Your task to perform on an android device: open app "Google Home" Image 0: 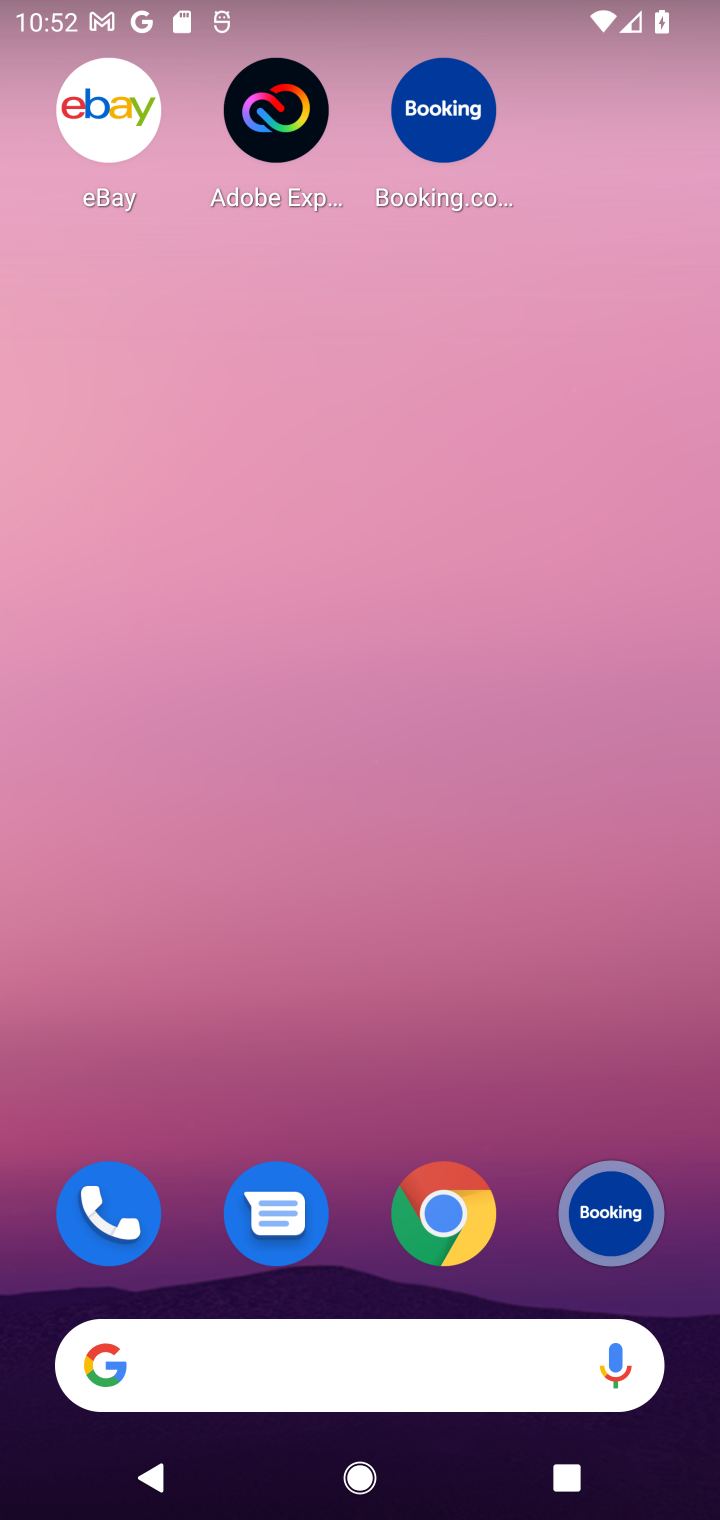
Step 0: drag from (384, 1381) to (319, 331)
Your task to perform on an android device: open app "Google Home" Image 1: 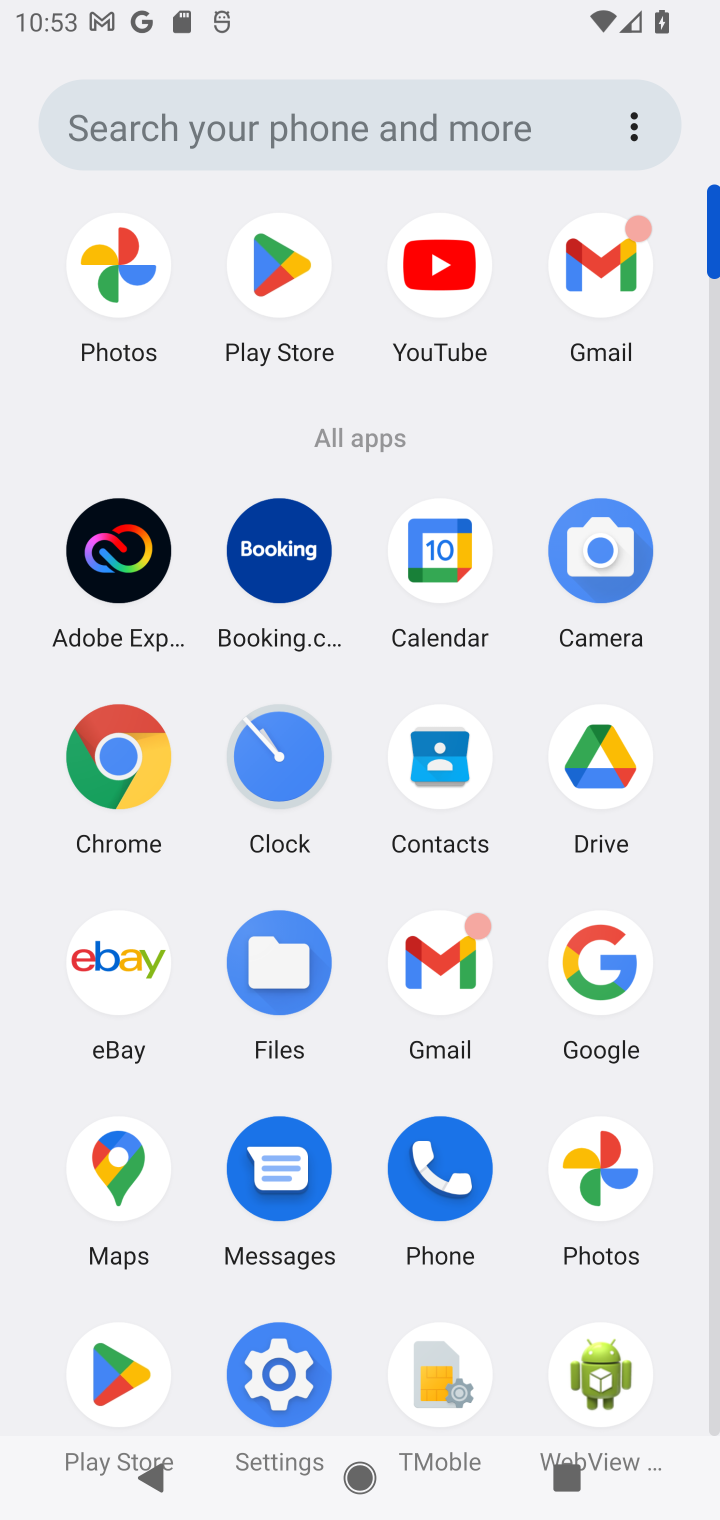
Step 1: click (120, 1375)
Your task to perform on an android device: open app "Google Home" Image 2: 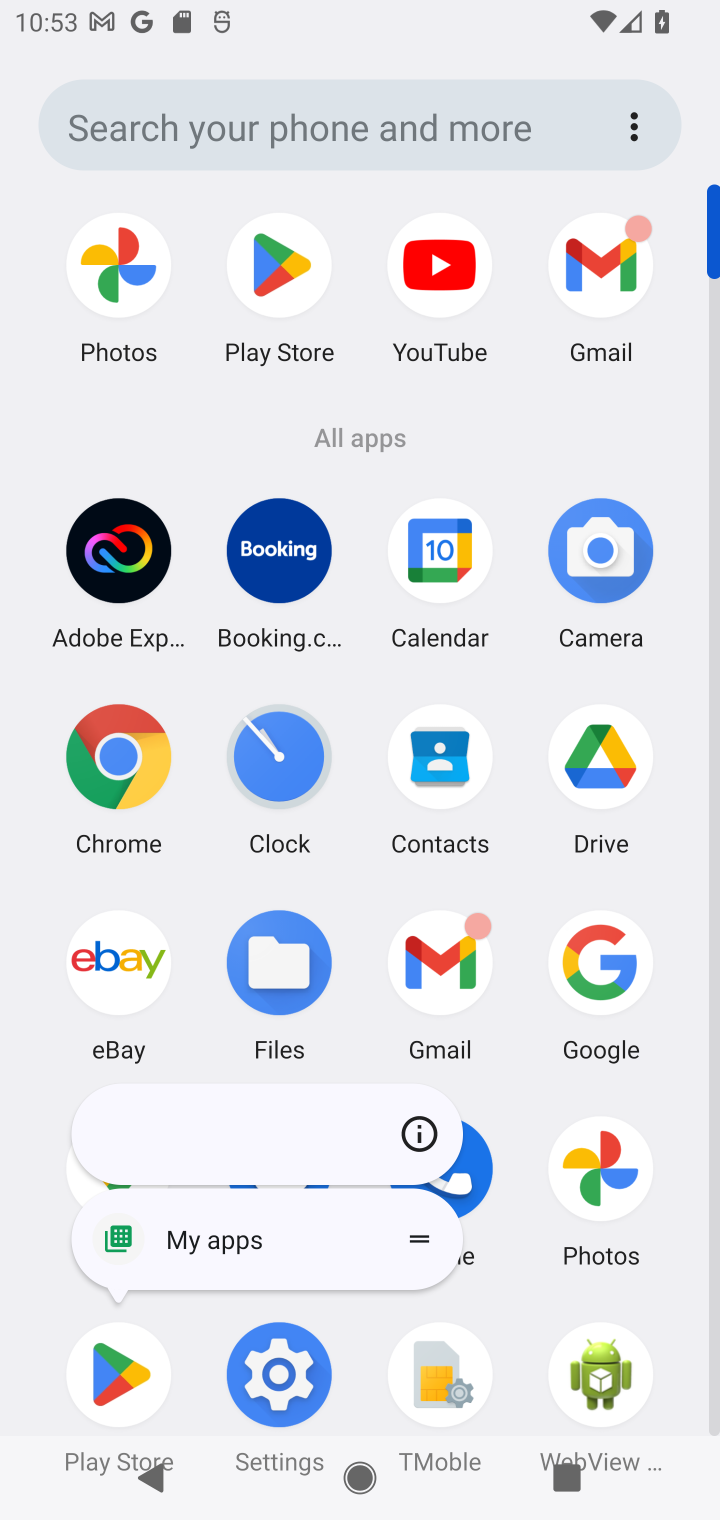
Step 2: click (120, 1375)
Your task to perform on an android device: open app "Google Home" Image 3: 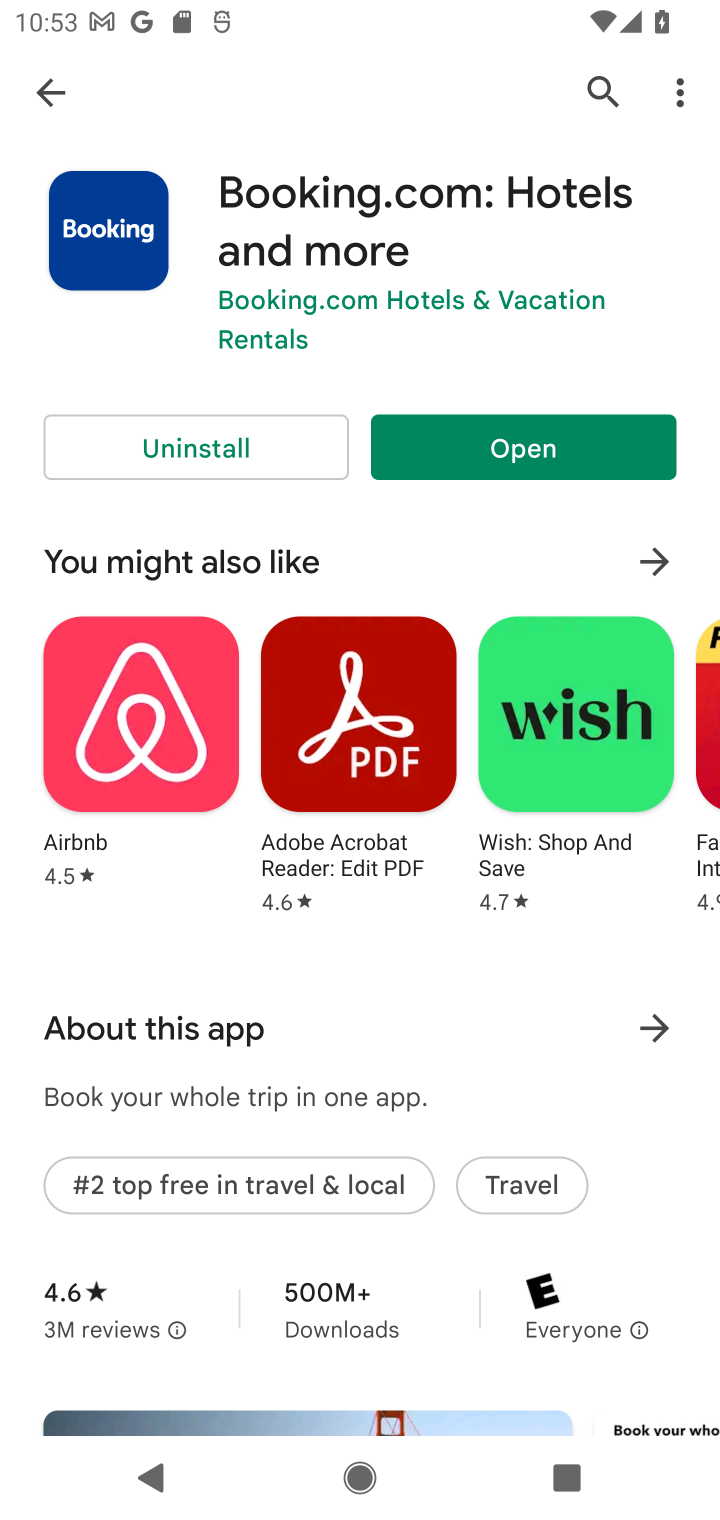
Step 3: press back button
Your task to perform on an android device: open app "Google Home" Image 4: 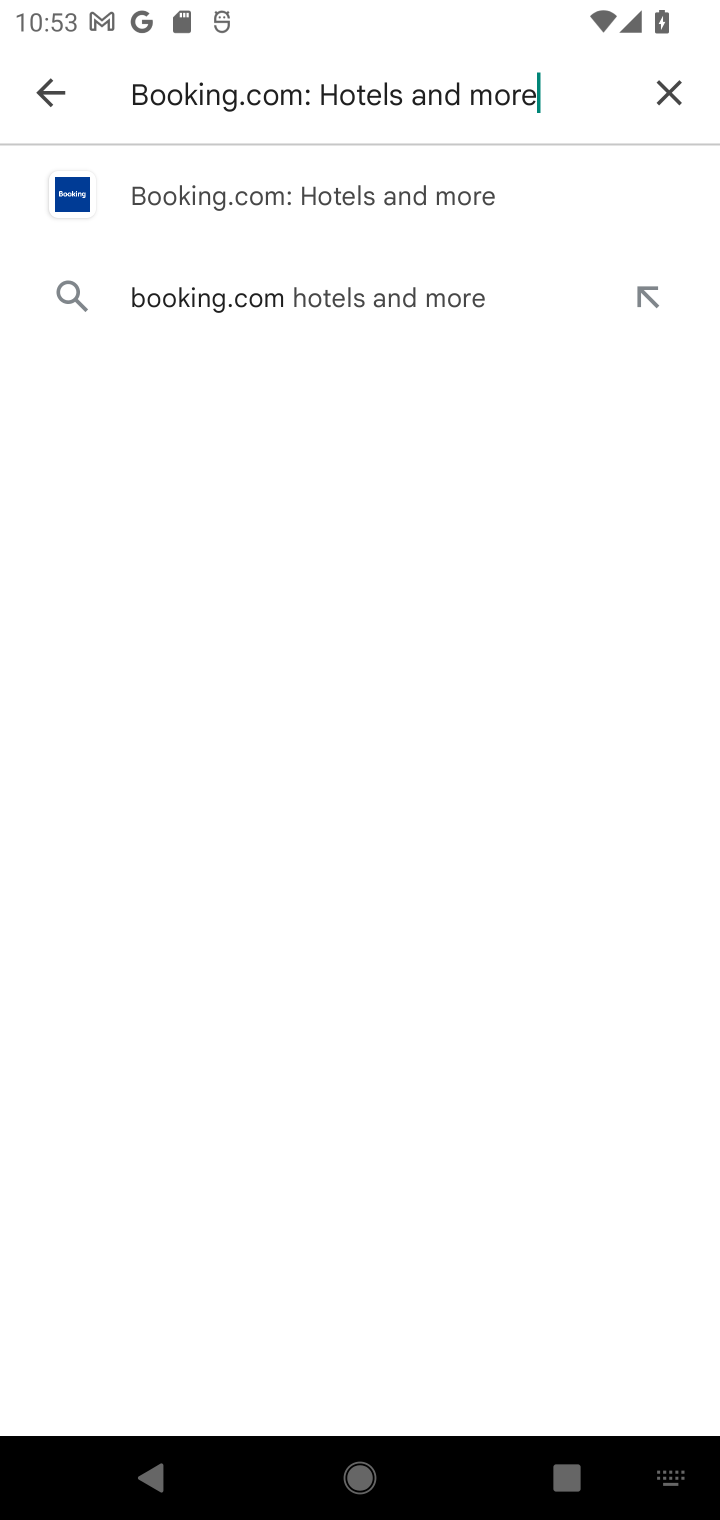
Step 4: press back button
Your task to perform on an android device: open app "Google Home" Image 5: 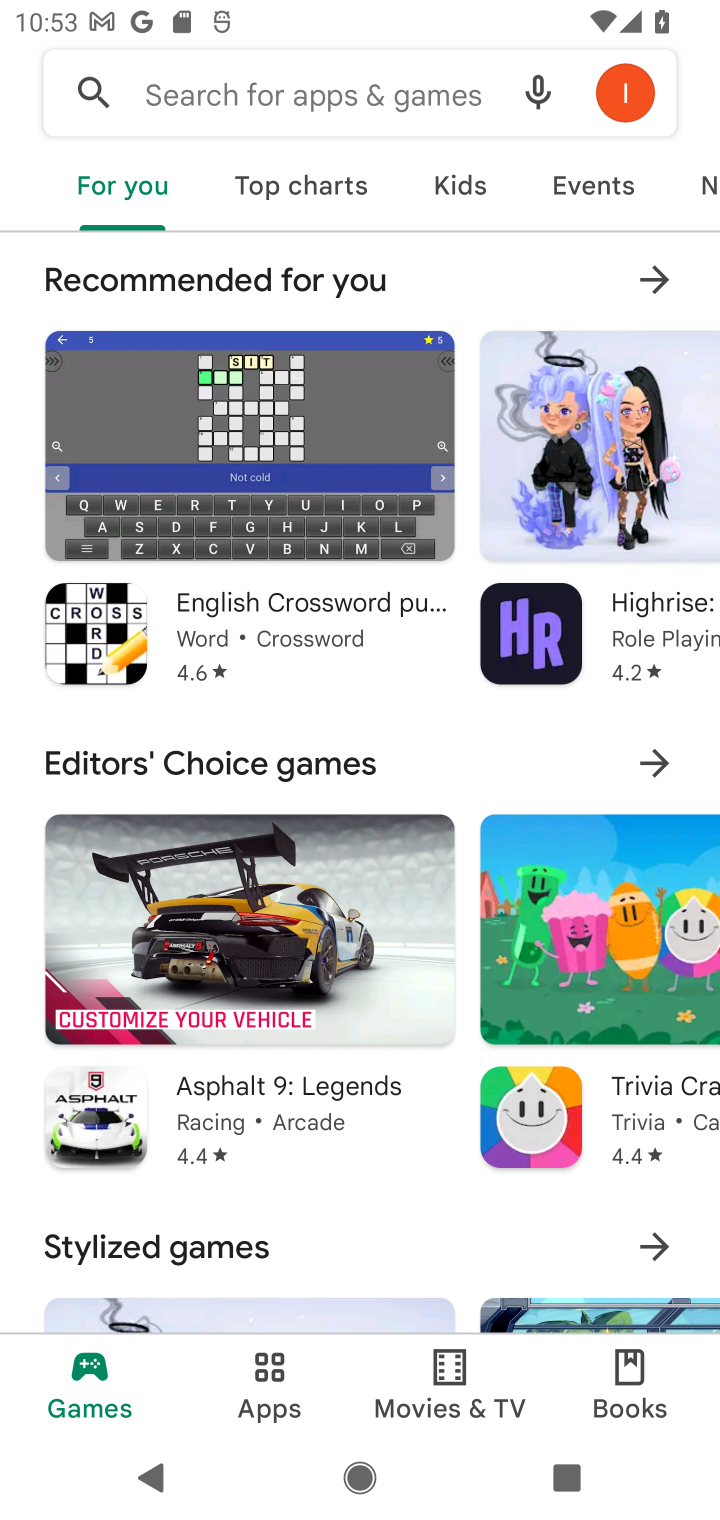
Step 5: click (337, 77)
Your task to perform on an android device: open app "Google Home" Image 6: 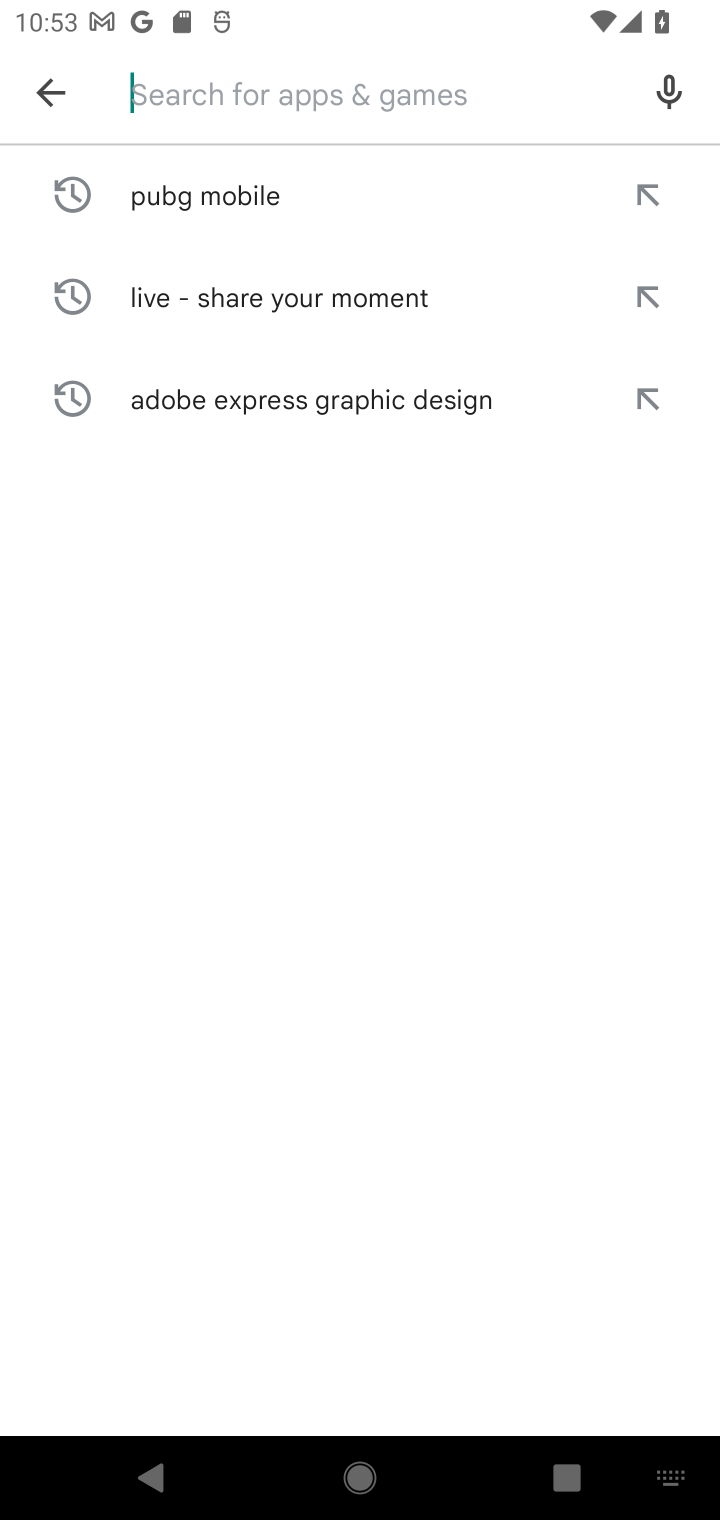
Step 6: click (230, 107)
Your task to perform on an android device: open app "Google Home" Image 7: 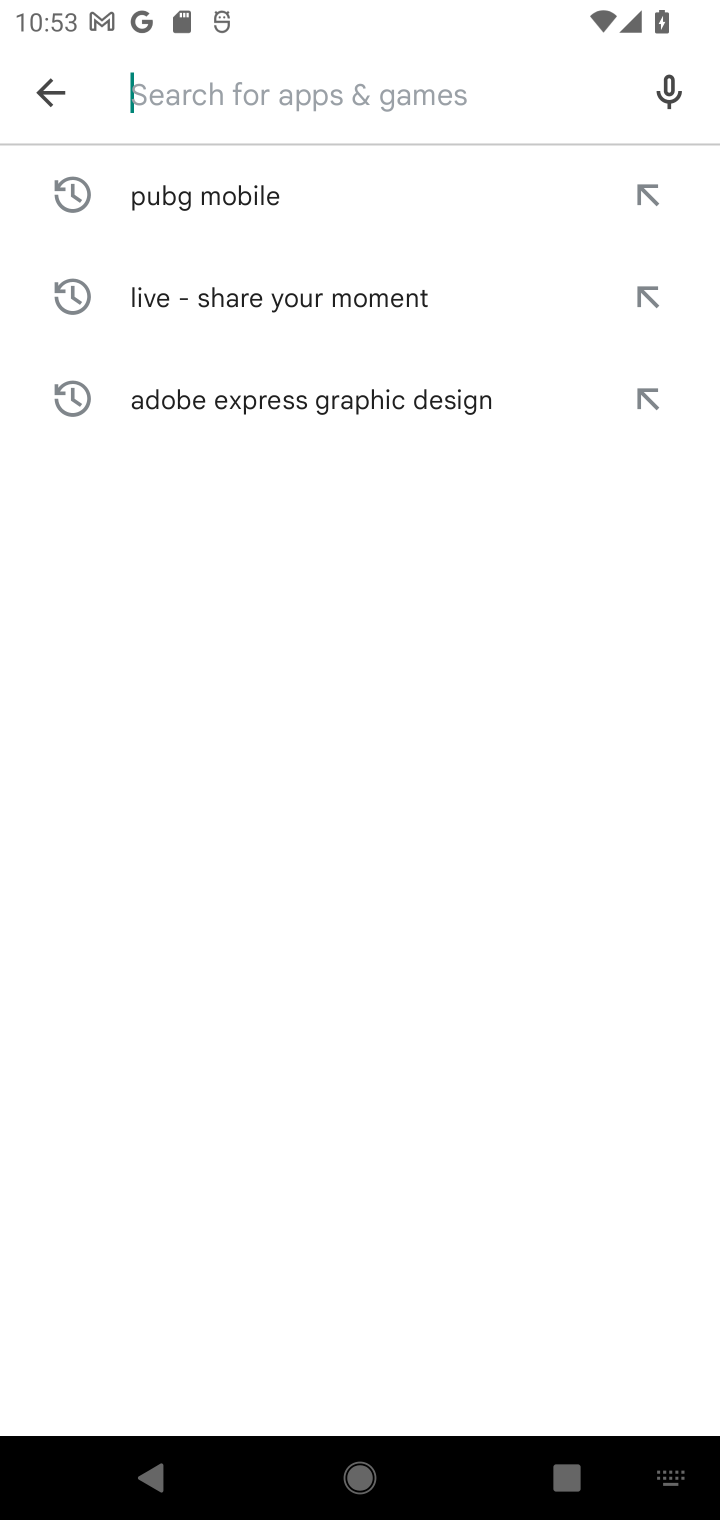
Step 7: type "Google Home"
Your task to perform on an android device: open app "Google Home" Image 8: 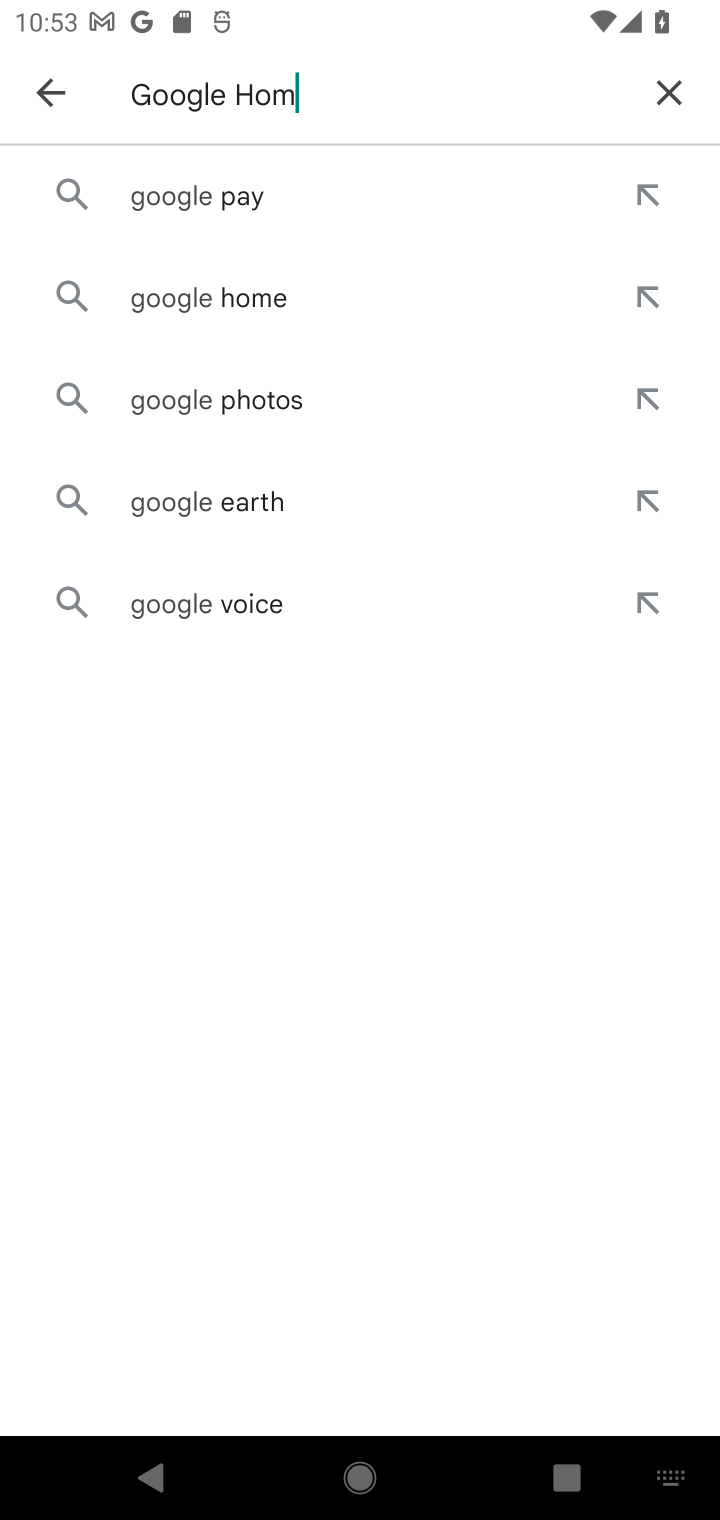
Step 8: type ""
Your task to perform on an android device: open app "Google Home" Image 9: 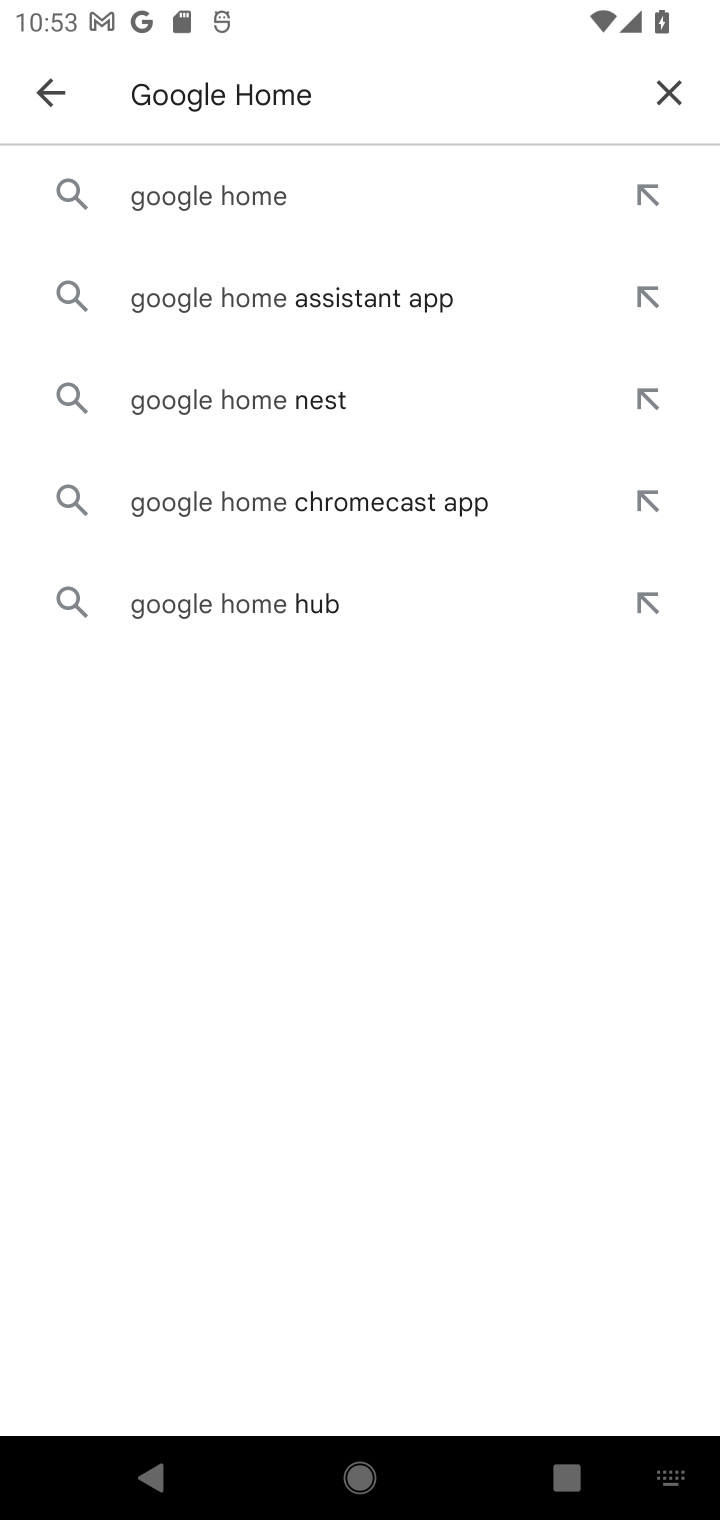
Step 9: click (270, 206)
Your task to perform on an android device: open app "Google Home" Image 10: 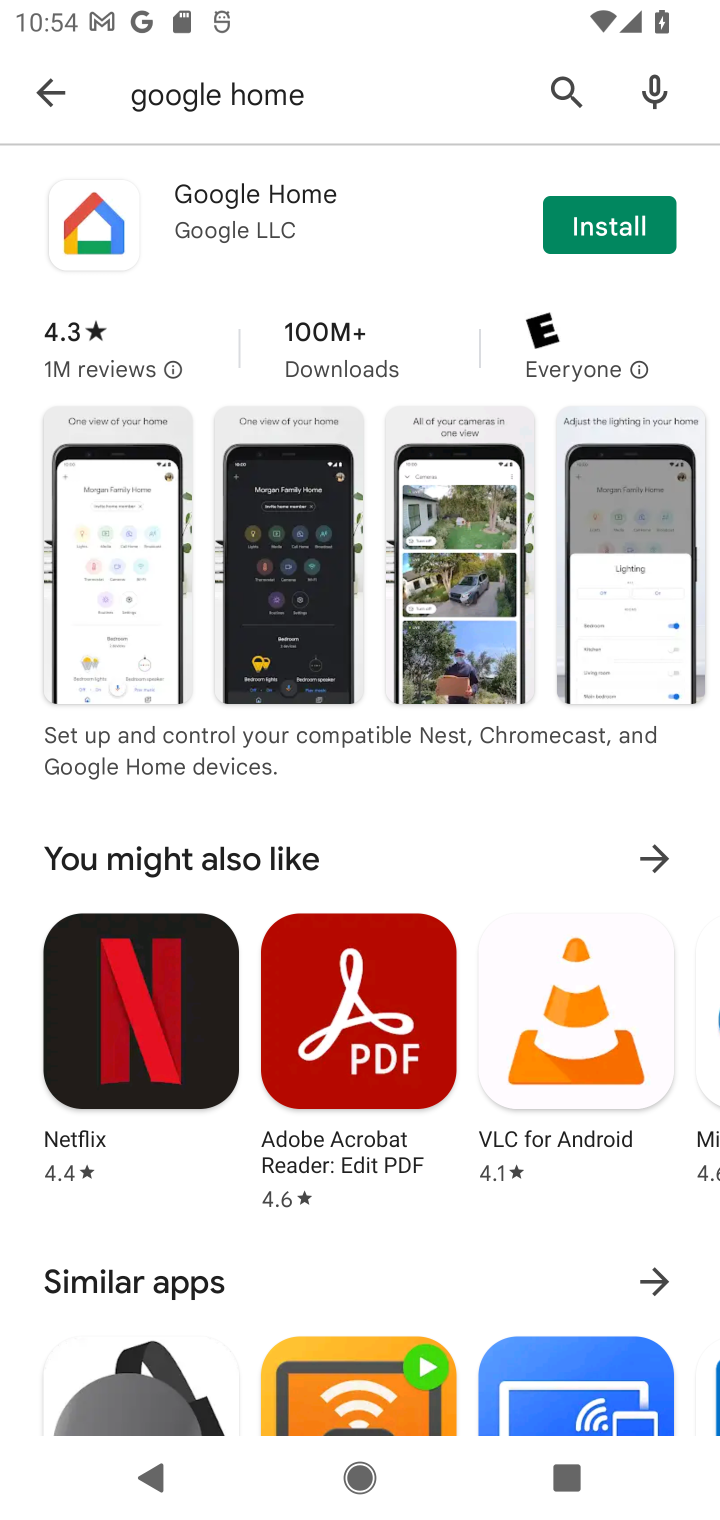
Step 10: task complete